Your task to perform on an android device: change the clock display to show seconds Image 0: 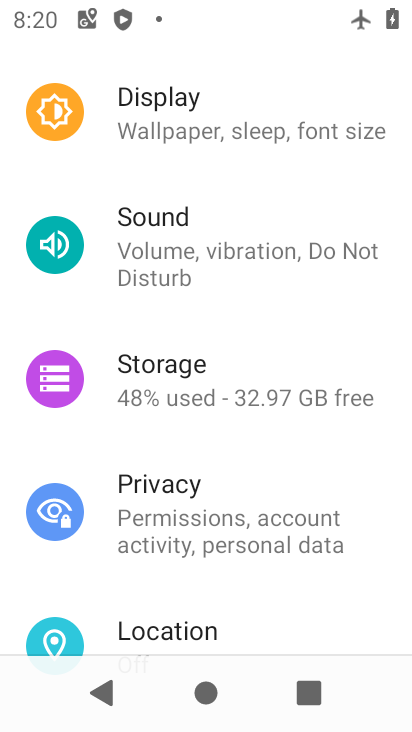
Step 0: press home button
Your task to perform on an android device: change the clock display to show seconds Image 1: 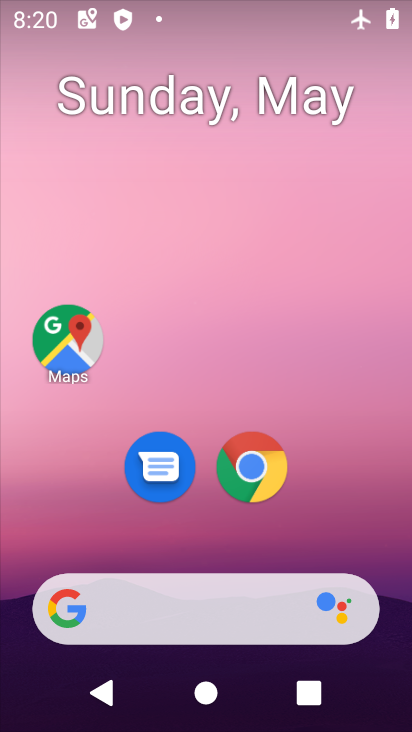
Step 1: drag from (183, 539) to (204, 173)
Your task to perform on an android device: change the clock display to show seconds Image 2: 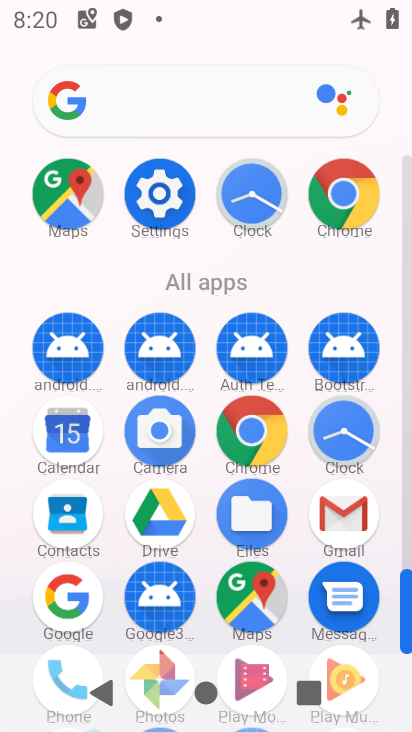
Step 2: click (252, 201)
Your task to perform on an android device: change the clock display to show seconds Image 3: 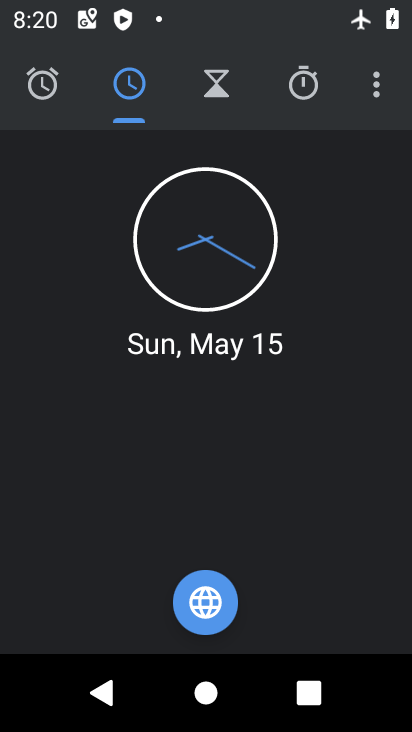
Step 3: click (388, 94)
Your task to perform on an android device: change the clock display to show seconds Image 4: 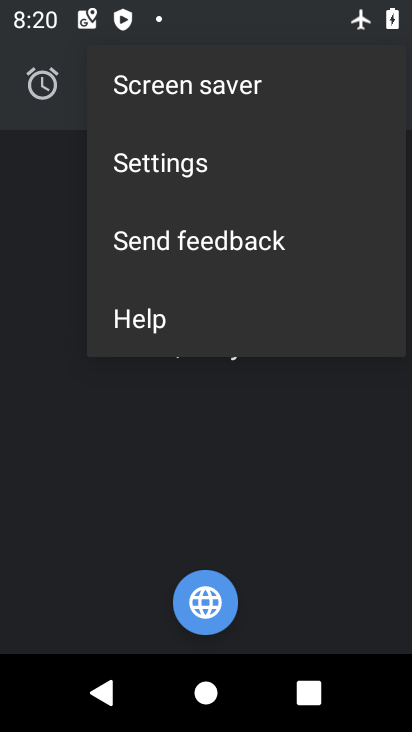
Step 4: click (214, 150)
Your task to perform on an android device: change the clock display to show seconds Image 5: 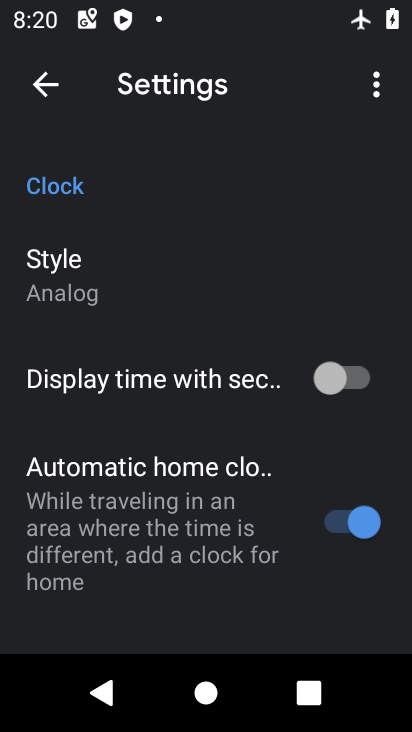
Step 5: click (372, 389)
Your task to perform on an android device: change the clock display to show seconds Image 6: 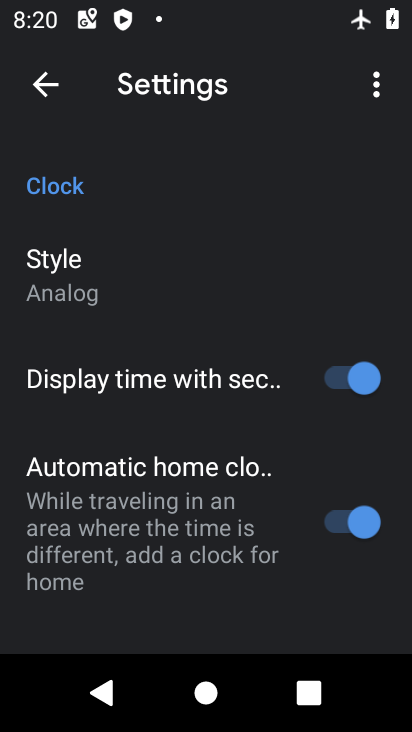
Step 6: task complete